Your task to perform on an android device: Search for Mexican restaurants on Maps Image 0: 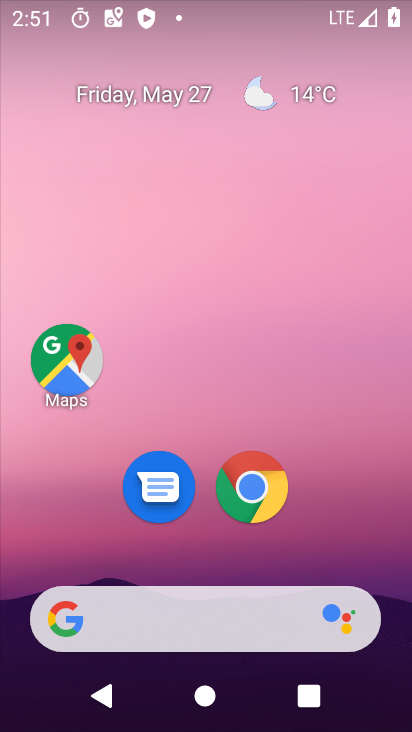
Step 0: drag from (342, 487) to (377, 124)
Your task to perform on an android device: Search for Mexican restaurants on Maps Image 1: 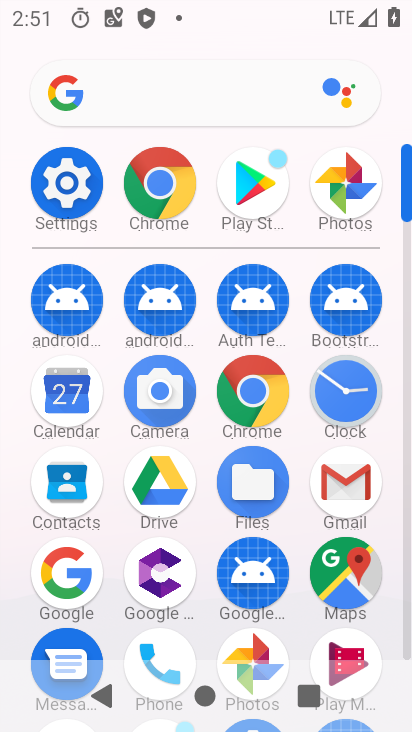
Step 1: click (359, 575)
Your task to perform on an android device: Search for Mexican restaurants on Maps Image 2: 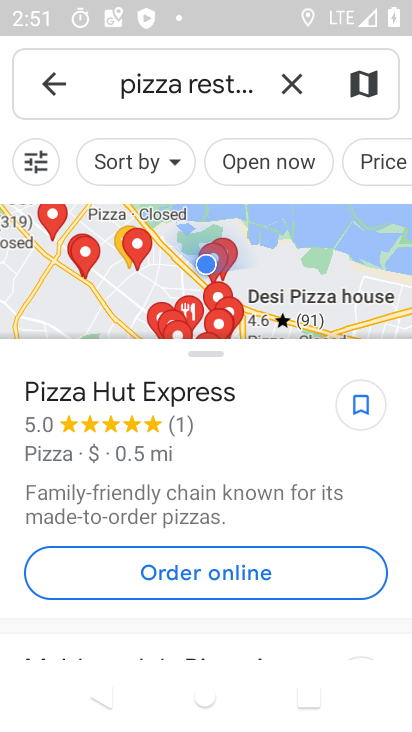
Step 2: click (146, 83)
Your task to perform on an android device: Search for Mexican restaurants on Maps Image 3: 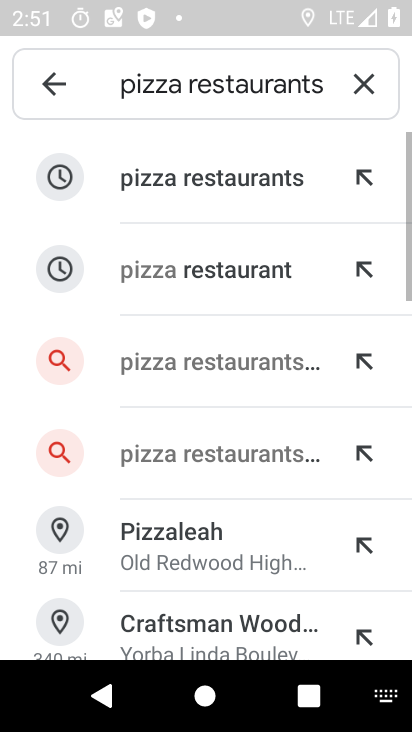
Step 3: click (368, 81)
Your task to perform on an android device: Search for Mexican restaurants on Maps Image 4: 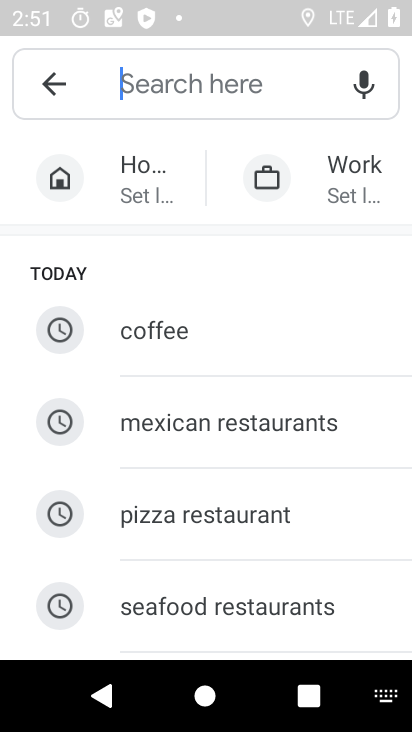
Step 4: click (304, 412)
Your task to perform on an android device: Search for Mexican restaurants on Maps Image 5: 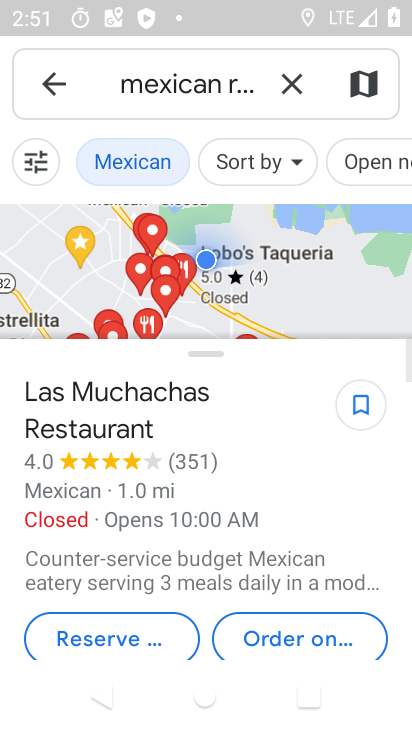
Step 5: task complete